Your task to perform on an android device: open wifi settings Image 0: 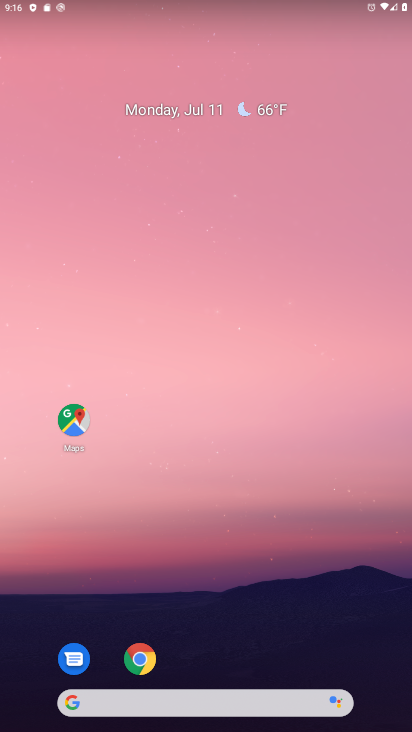
Step 0: drag from (349, 625) to (358, 137)
Your task to perform on an android device: open wifi settings Image 1: 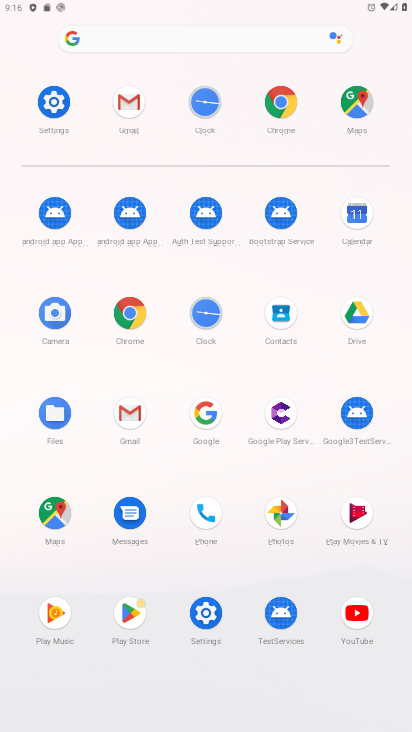
Step 1: click (53, 100)
Your task to perform on an android device: open wifi settings Image 2: 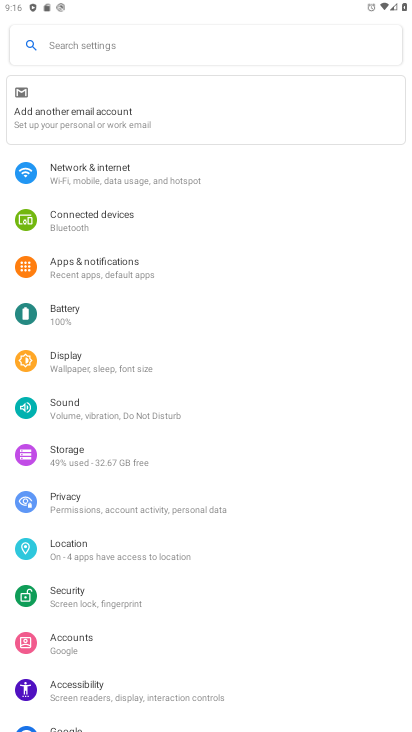
Step 2: click (231, 188)
Your task to perform on an android device: open wifi settings Image 3: 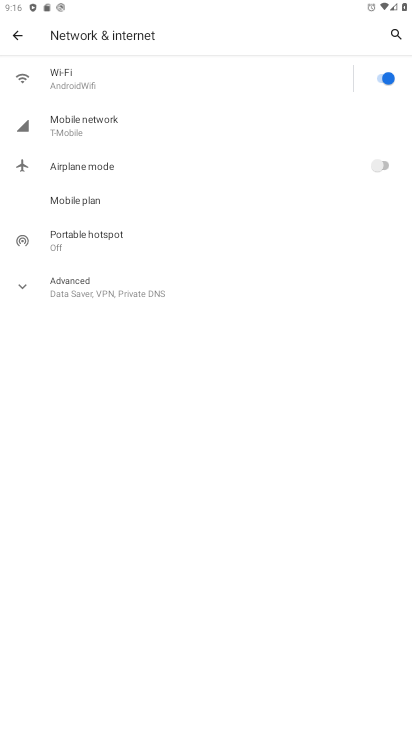
Step 3: click (109, 85)
Your task to perform on an android device: open wifi settings Image 4: 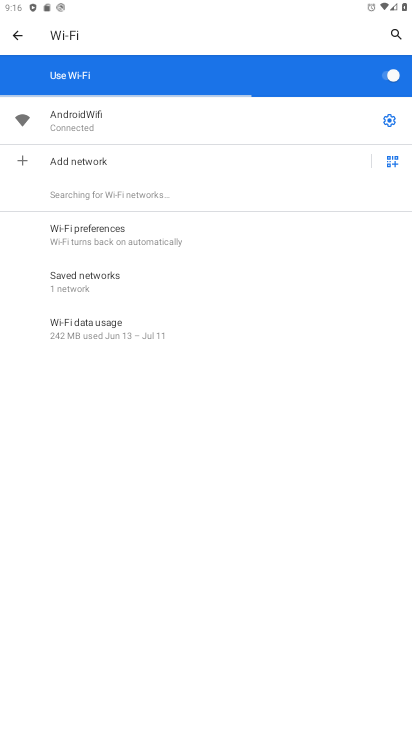
Step 4: task complete